Your task to perform on an android device: Open network settings Image 0: 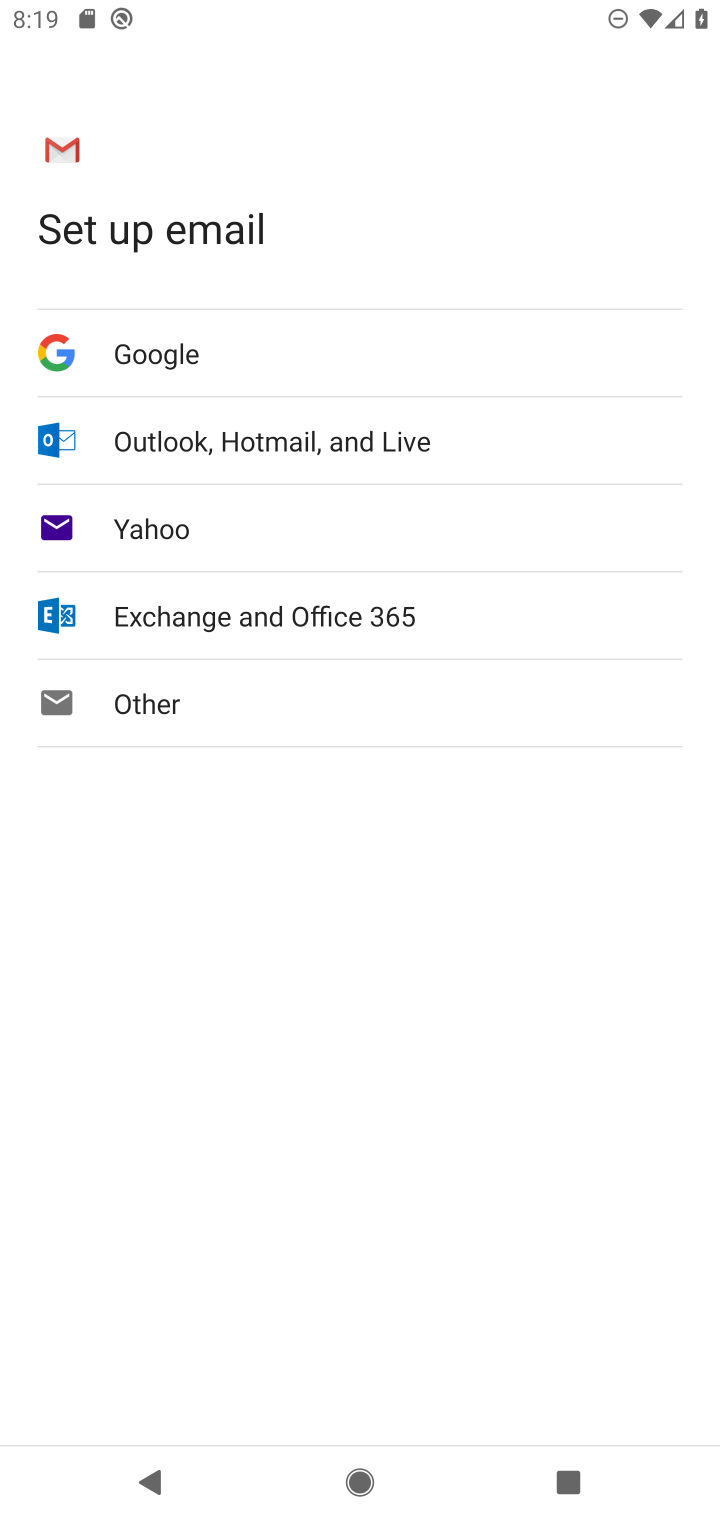
Step 0: press home button
Your task to perform on an android device: Open network settings Image 1: 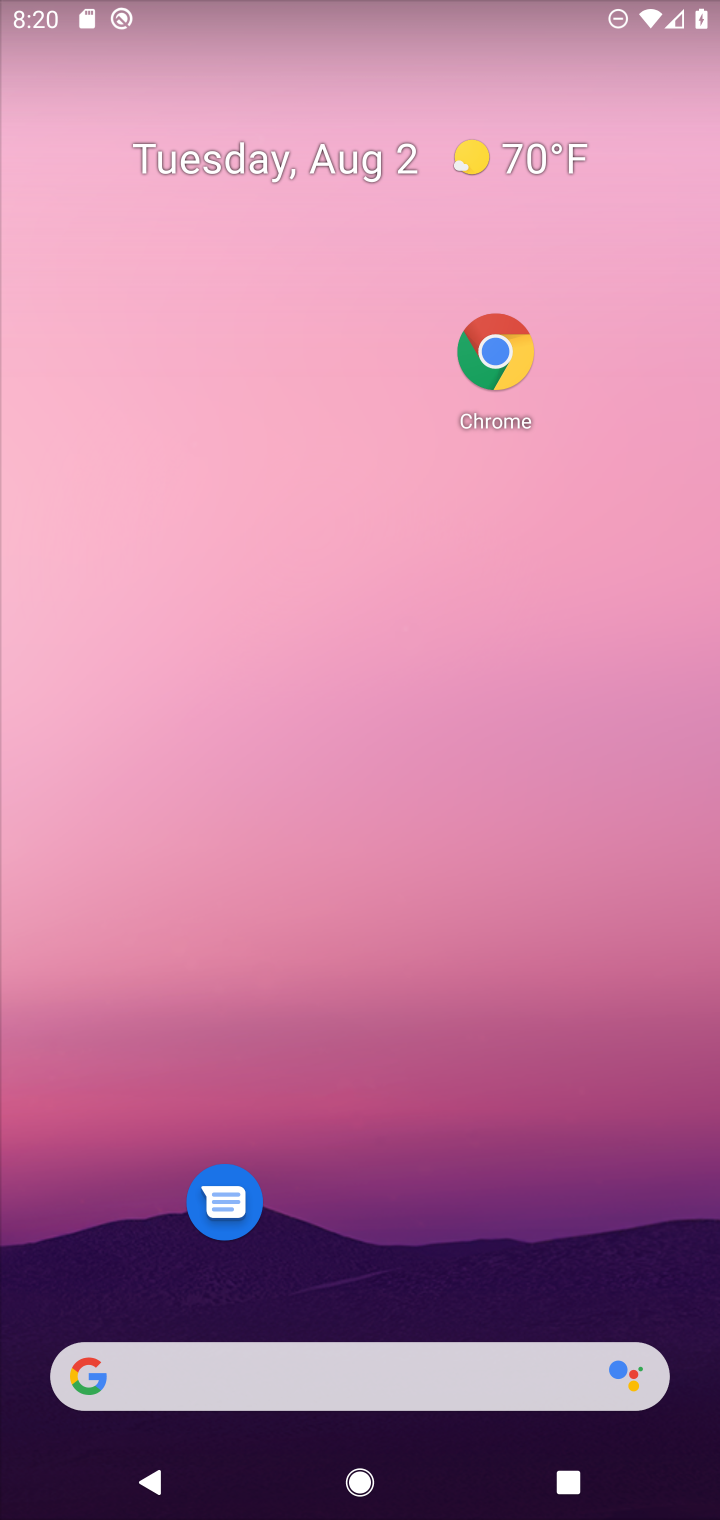
Step 1: drag from (349, 1268) to (372, 69)
Your task to perform on an android device: Open network settings Image 2: 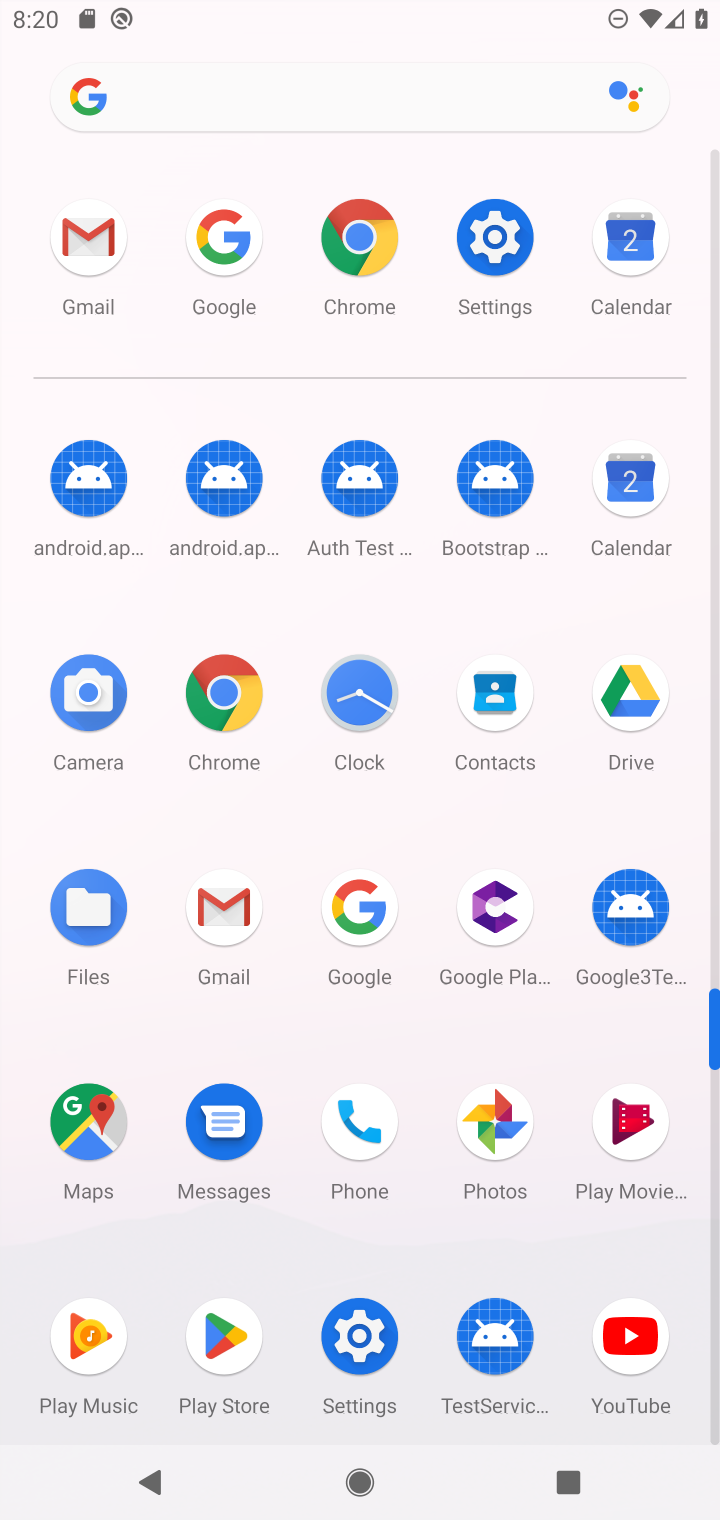
Step 2: click (497, 241)
Your task to perform on an android device: Open network settings Image 3: 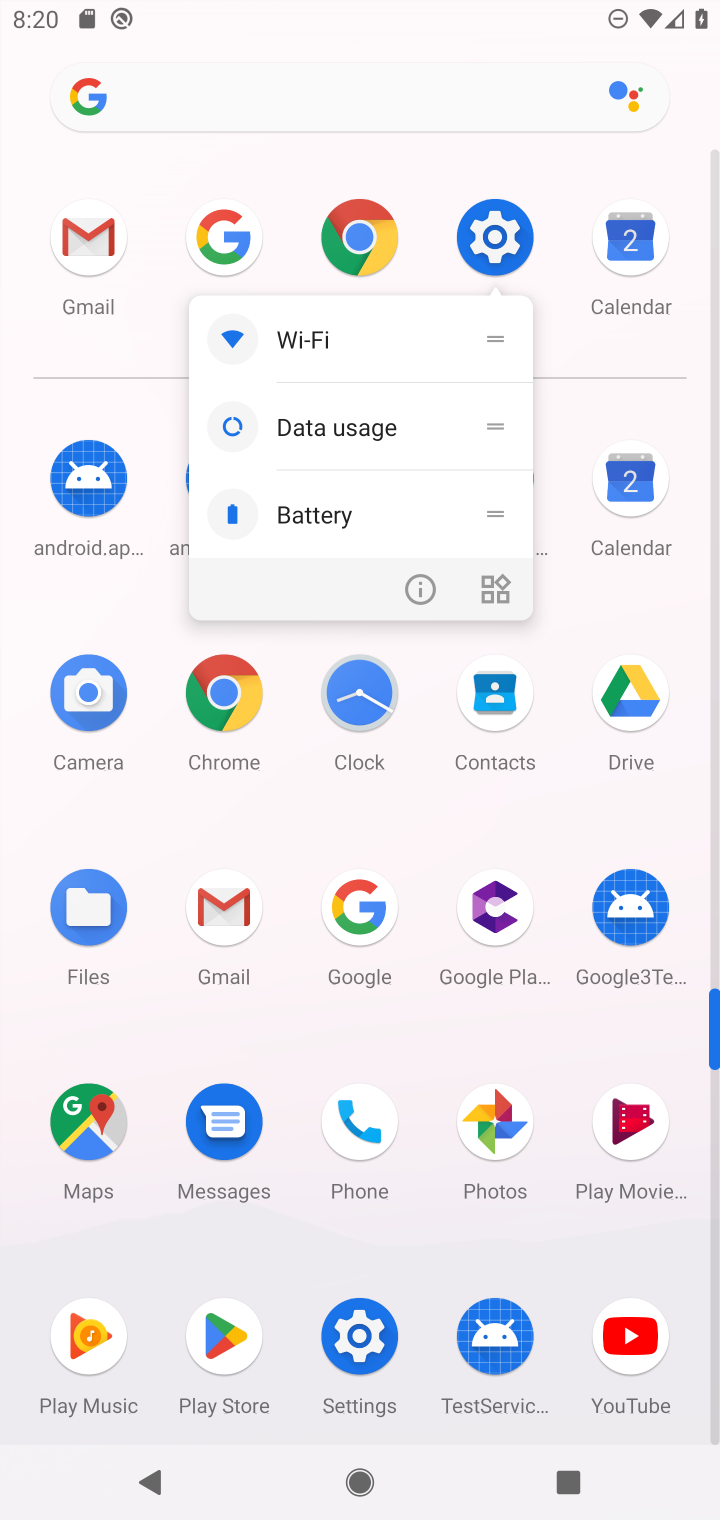
Step 3: click (497, 243)
Your task to perform on an android device: Open network settings Image 4: 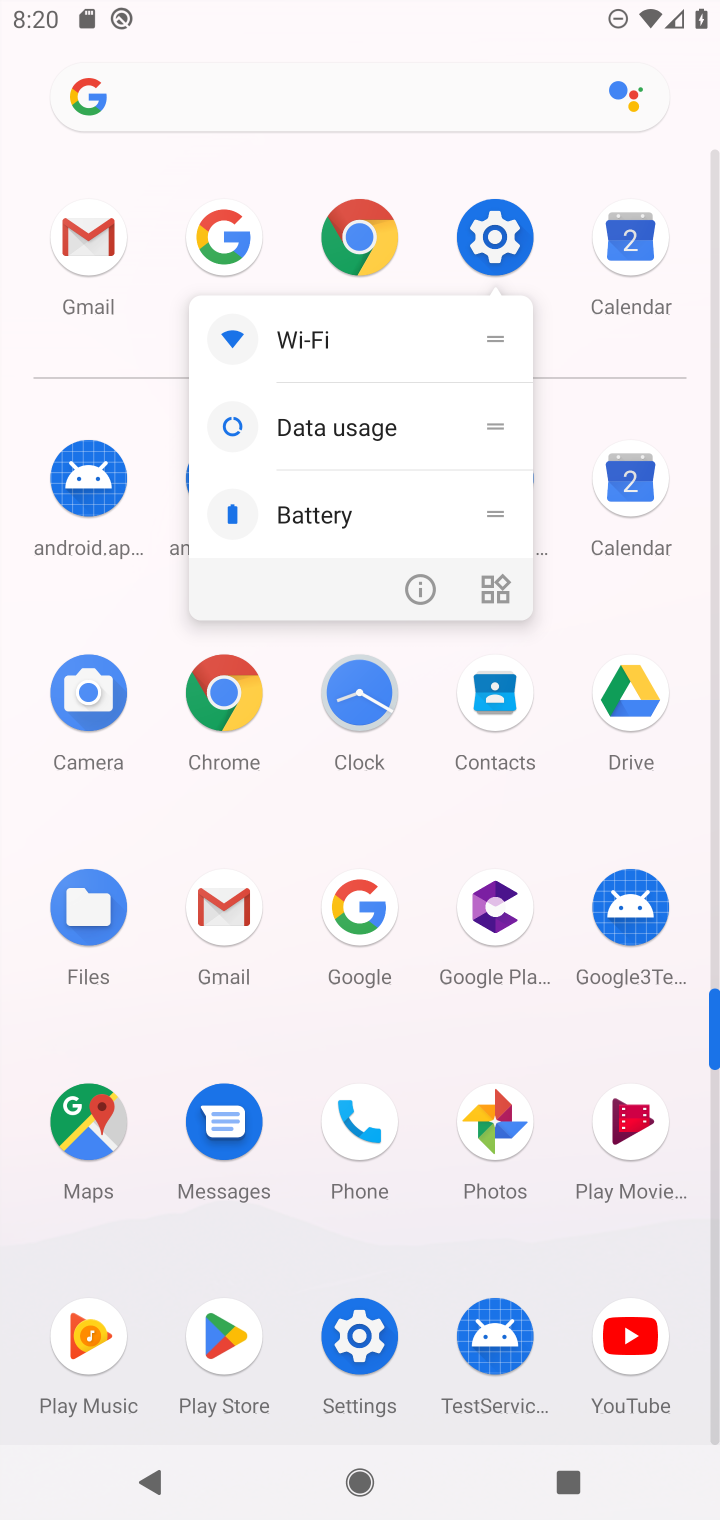
Step 4: click (491, 238)
Your task to perform on an android device: Open network settings Image 5: 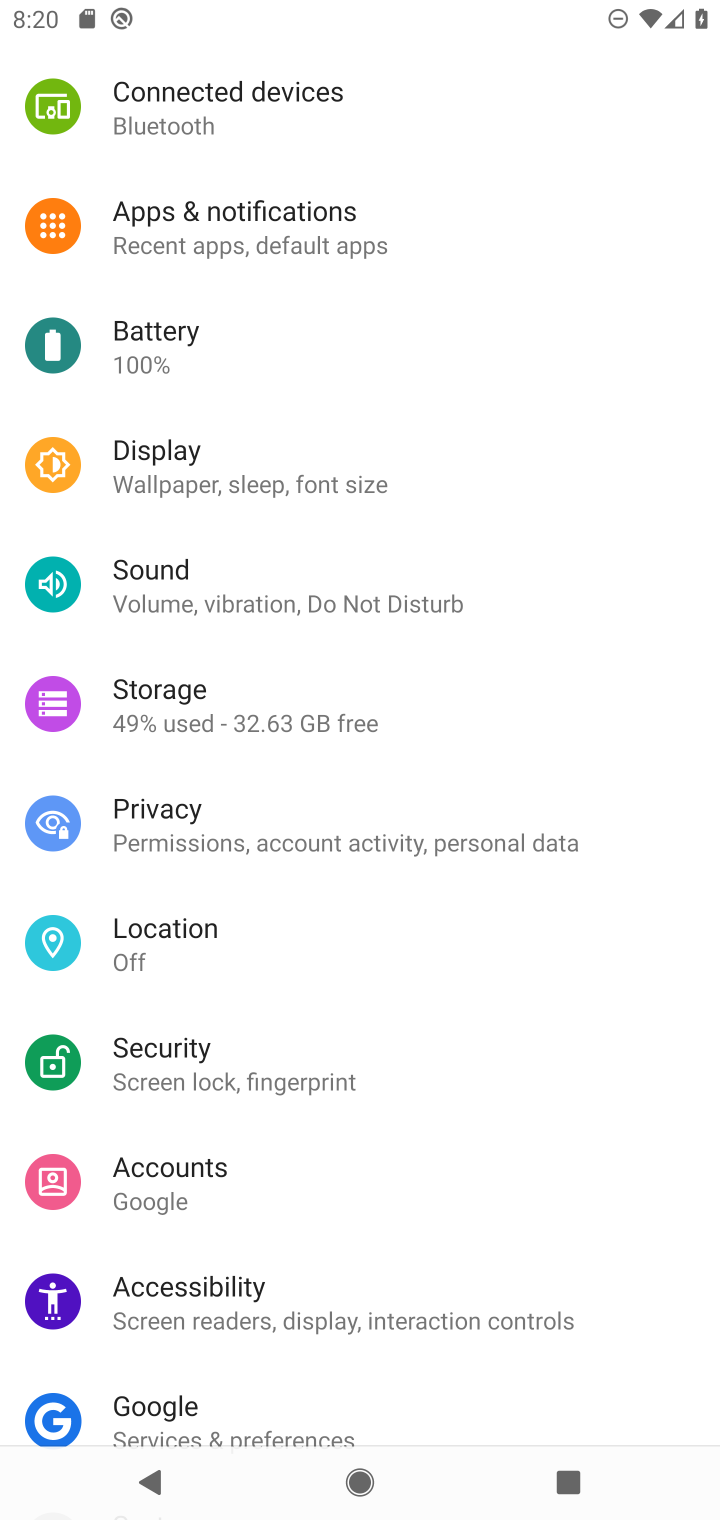
Step 5: drag from (493, 239) to (527, 697)
Your task to perform on an android device: Open network settings Image 6: 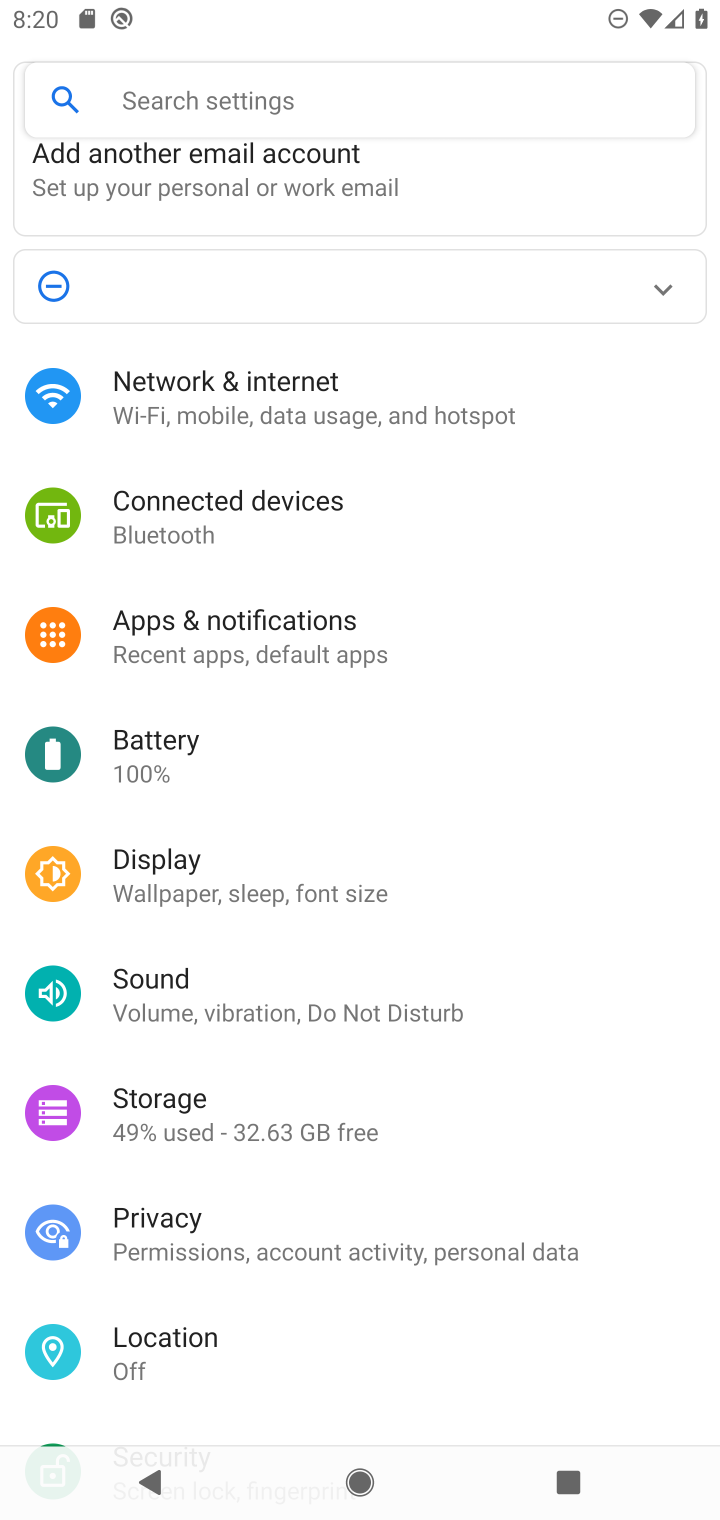
Step 6: click (228, 421)
Your task to perform on an android device: Open network settings Image 7: 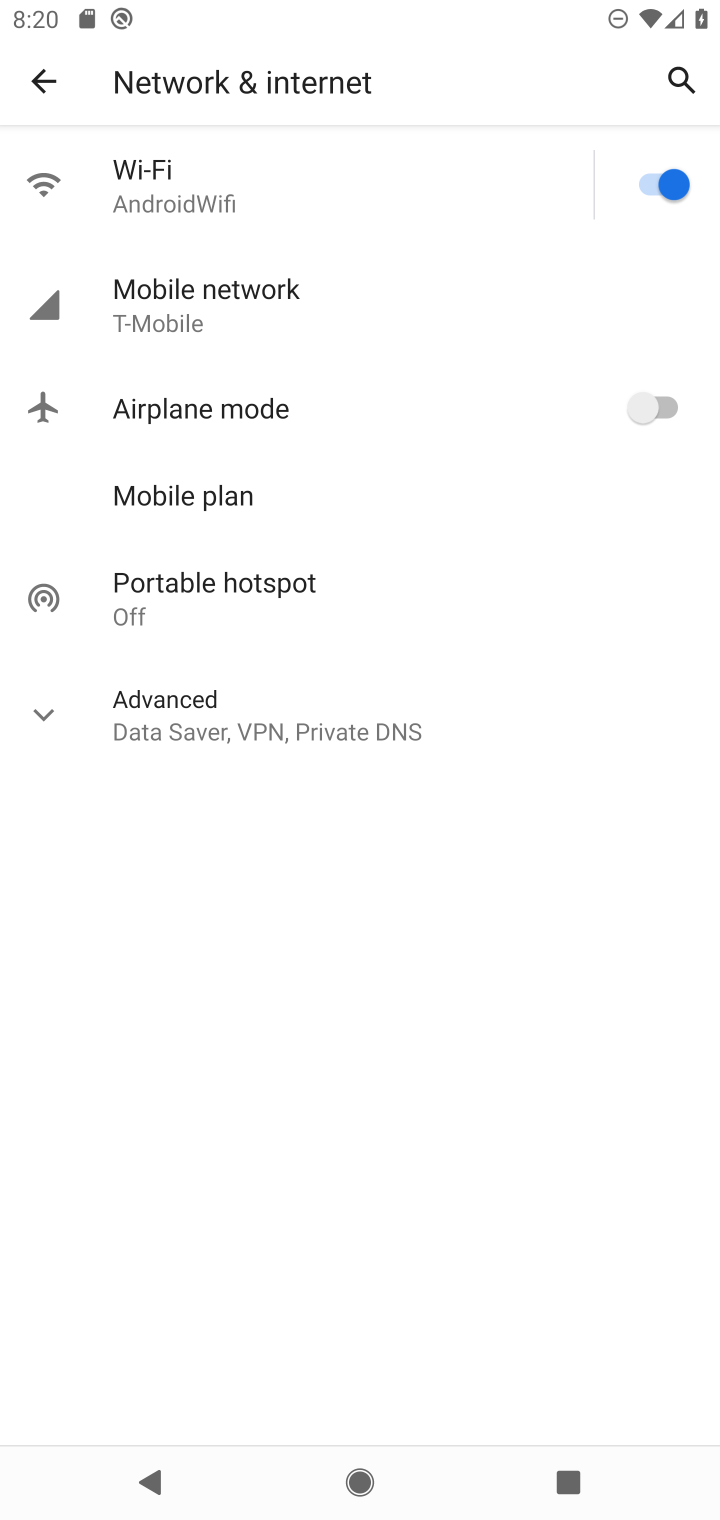
Step 7: click (172, 315)
Your task to perform on an android device: Open network settings Image 8: 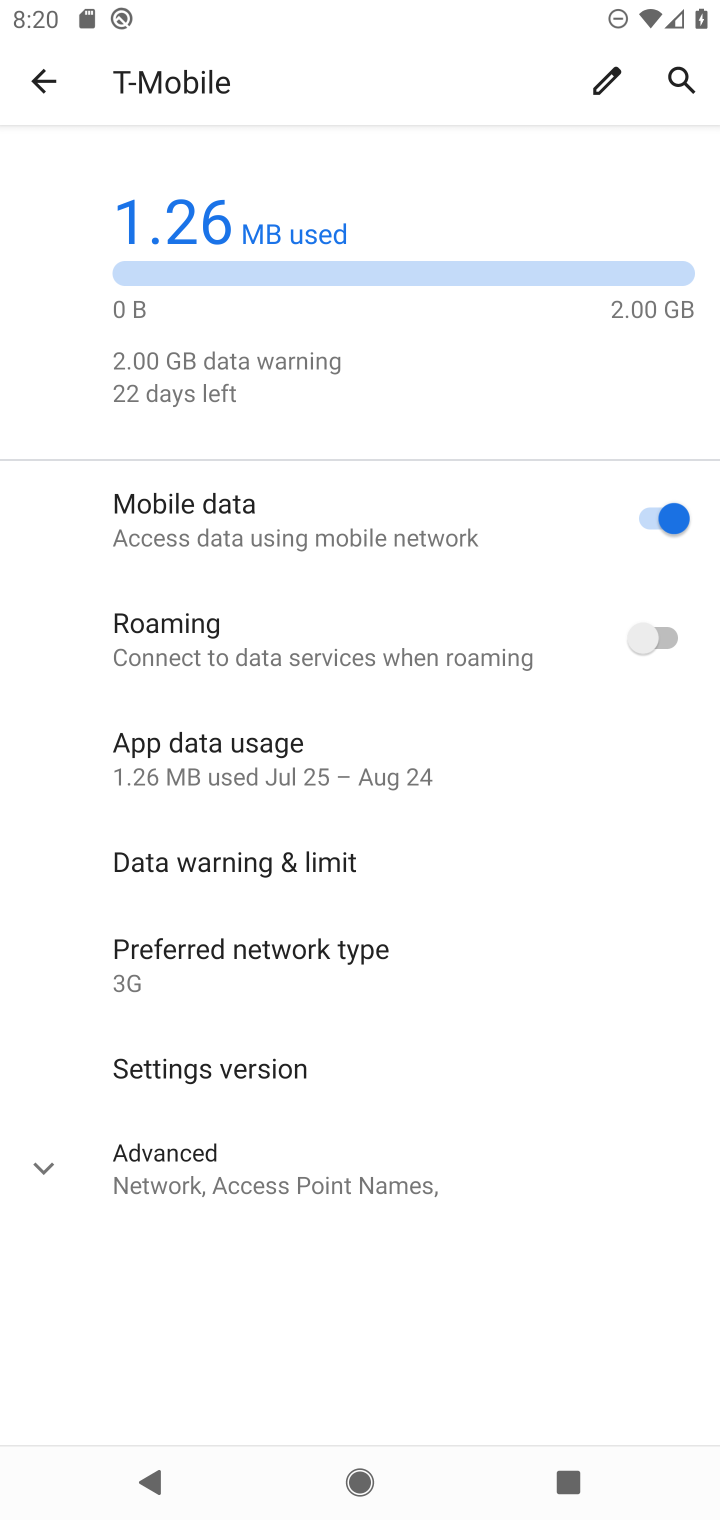
Step 8: click (48, 1175)
Your task to perform on an android device: Open network settings Image 9: 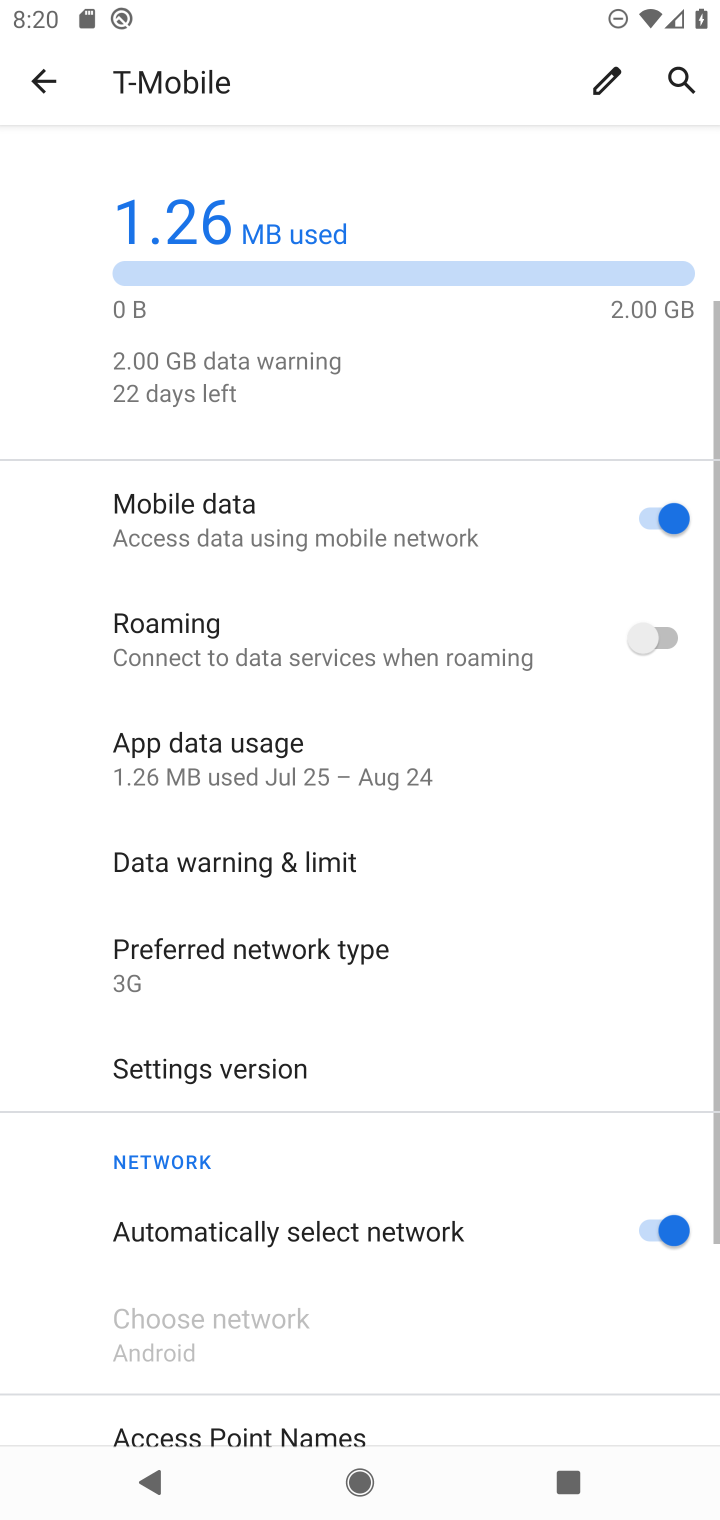
Step 9: task complete